Your task to perform on an android device: turn off location Image 0: 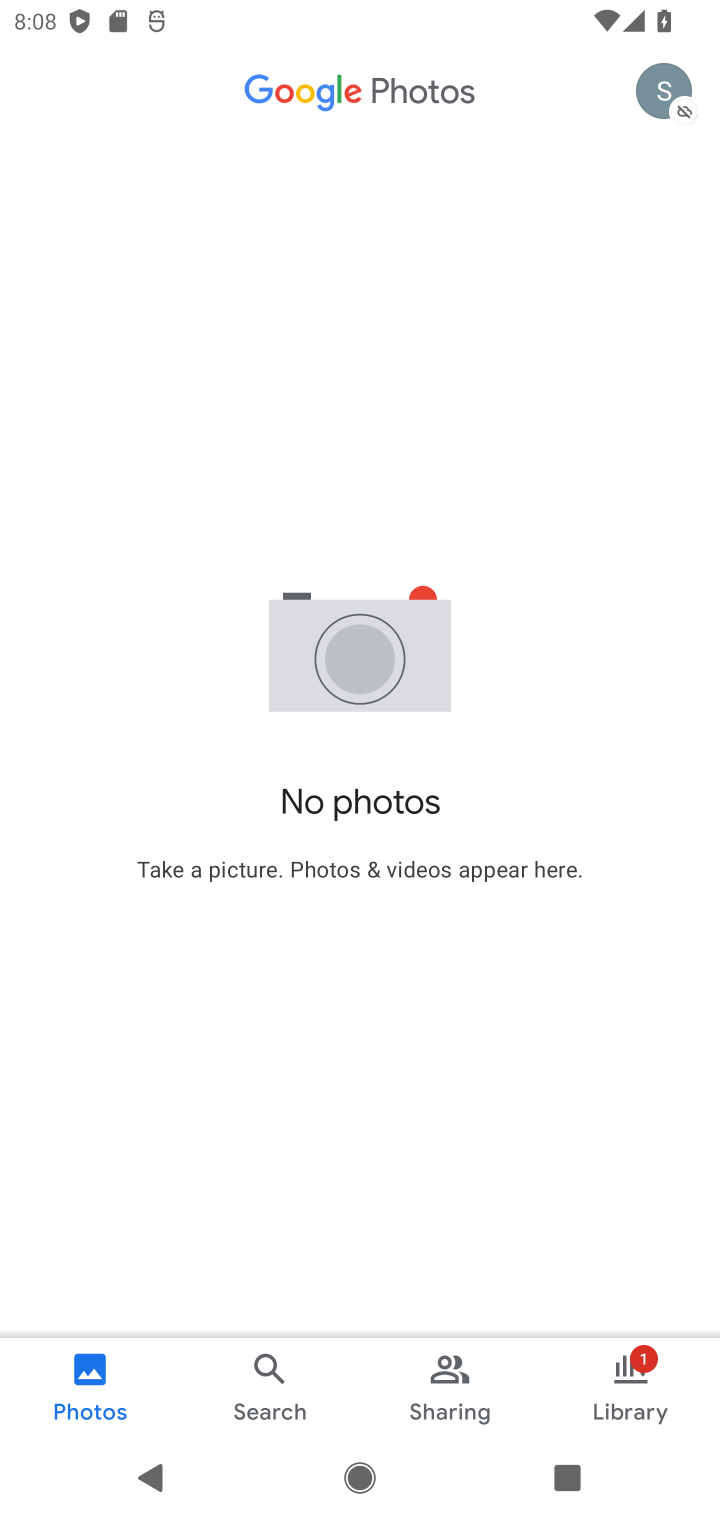
Step 0: press home button
Your task to perform on an android device: turn off location Image 1: 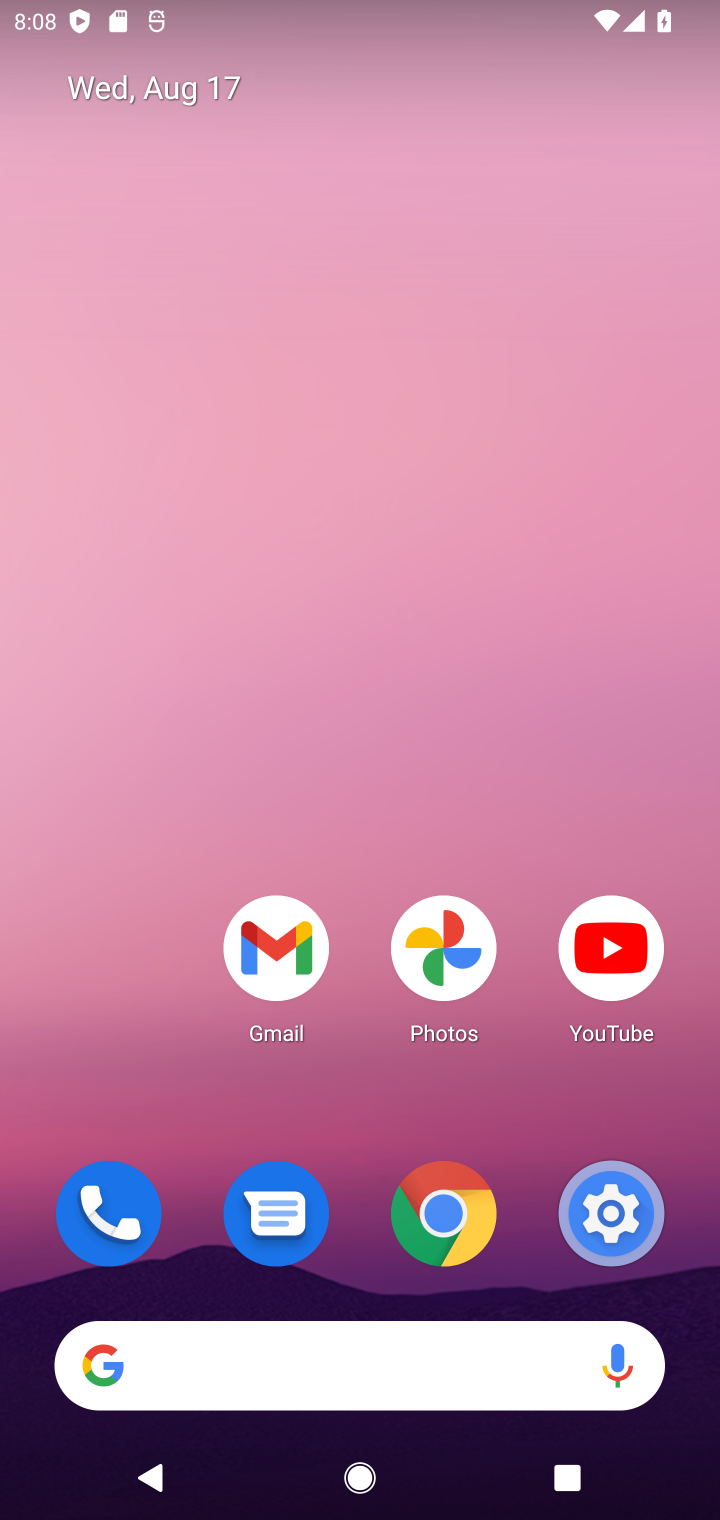
Step 1: click (596, 1246)
Your task to perform on an android device: turn off location Image 2: 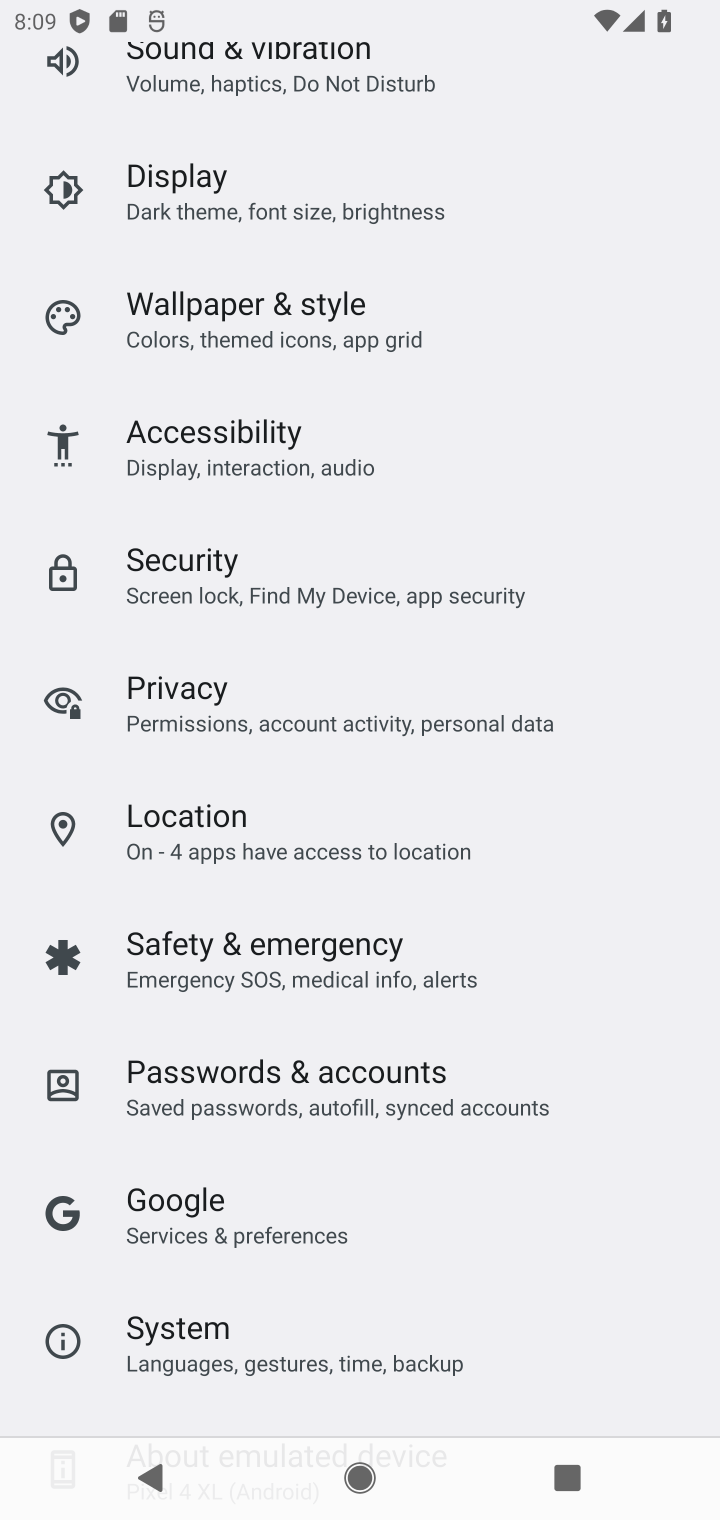
Step 2: click (246, 849)
Your task to perform on an android device: turn off location Image 3: 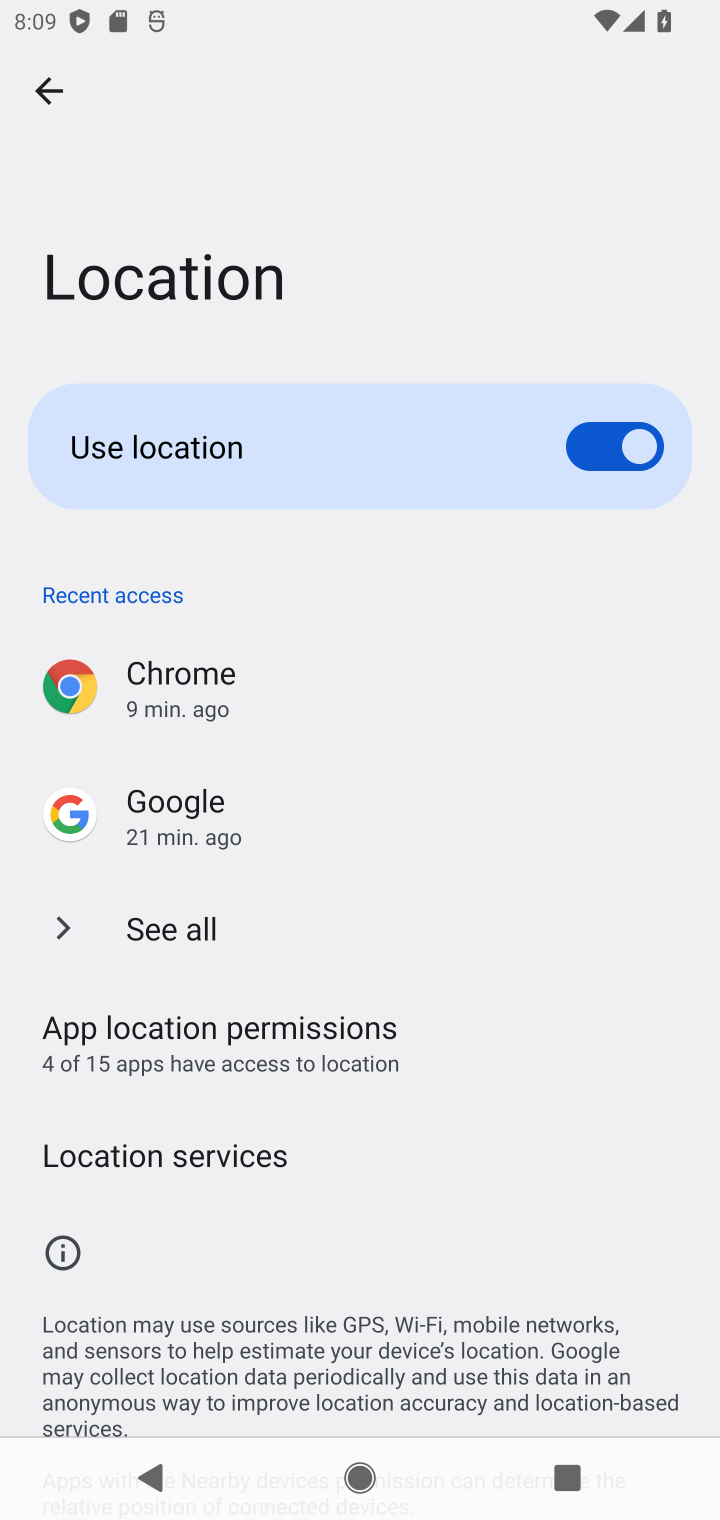
Step 3: task complete